Your task to perform on an android device: Open Maps and search for coffee Image 0: 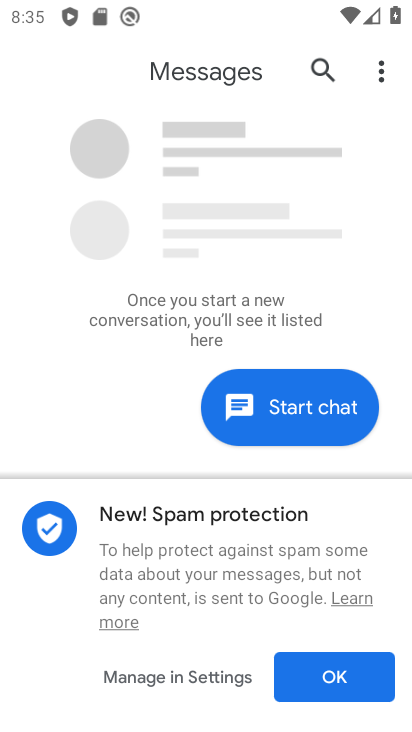
Step 0: press home button
Your task to perform on an android device: Open Maps and search for coffee Image 1: 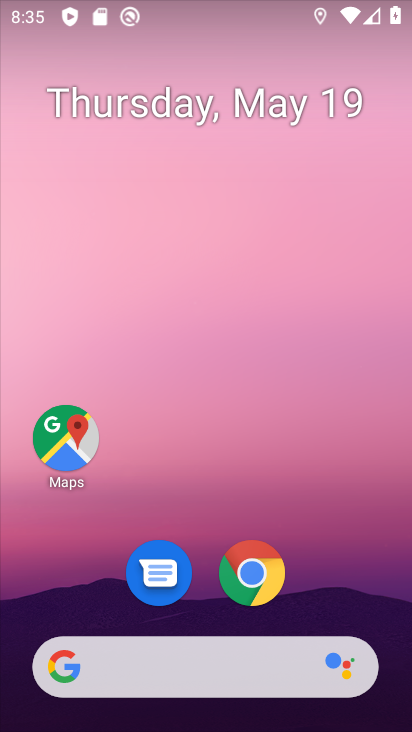
Step 1: click (57, 441)
Your task to perform on an android device: Open Maps and search for coffee Image 2: 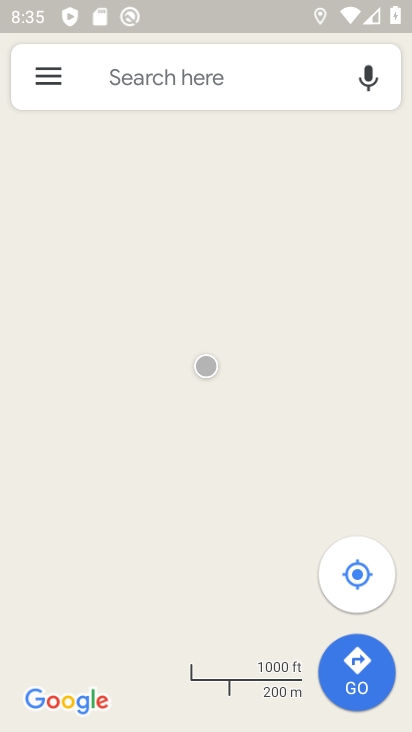
Step 2: click (112, 93)
Your task to perform on an android device: Open Maps and search for coffee Image 3: 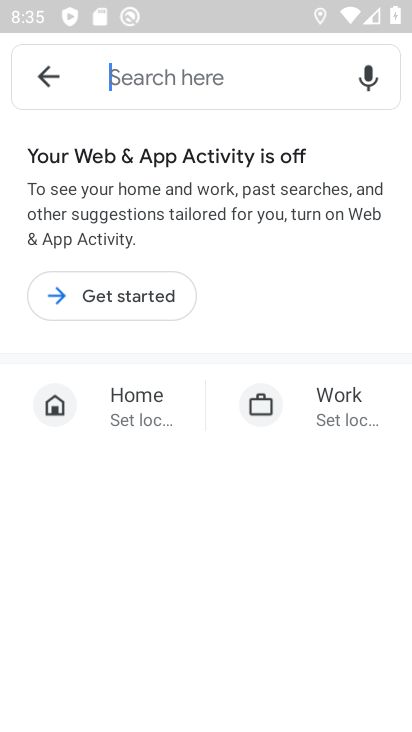
Step 3: click (117, 80)
Your task to perform on an android device: Open Maps and search for coffee Image 4: 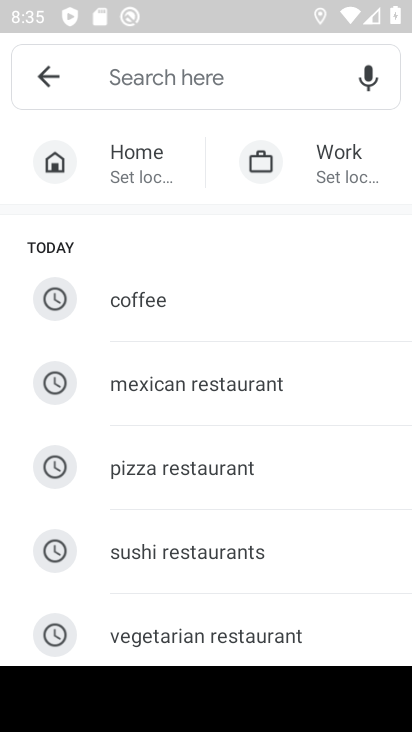
Step 4: type "coffee"
Your task to perform on an android device: Open Maps and search for coffee Image 5: 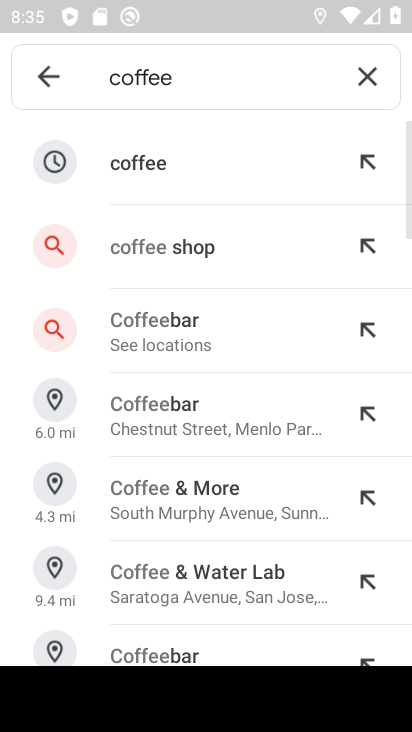
Step 5: click (133, 167)
Your task to perform on an android device: Open Maps and search for coffee Image 6: 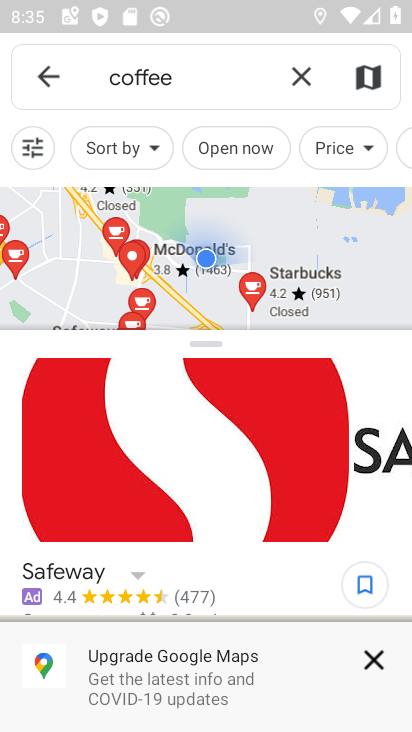
Step 6: task complete